Your task to perform on an android device: Open Chrome and go to the settings page Image 0: 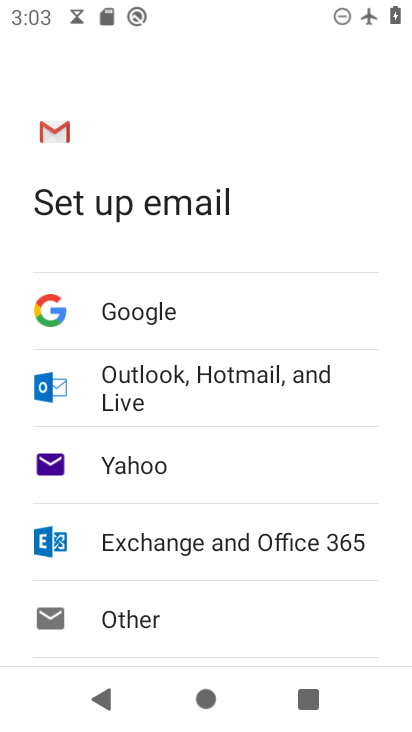
Step 0: click (326, 504)
Your task to perform on an android device: Open Chrome and go to the settings page Image 1: 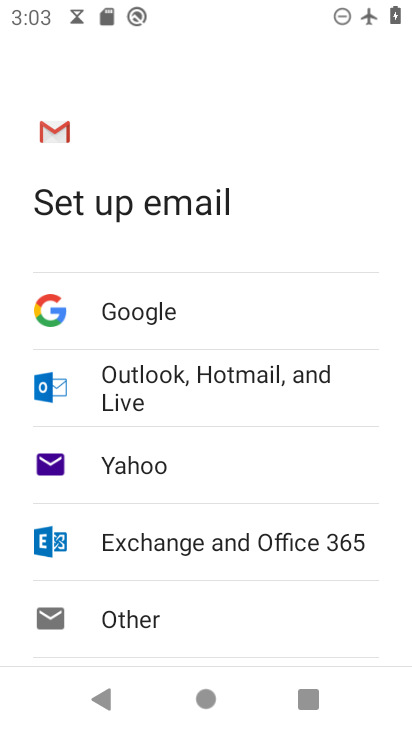
Step 1: press home button
Your task to perform on an android device: Open Chrome and go to the settings page Image 2: 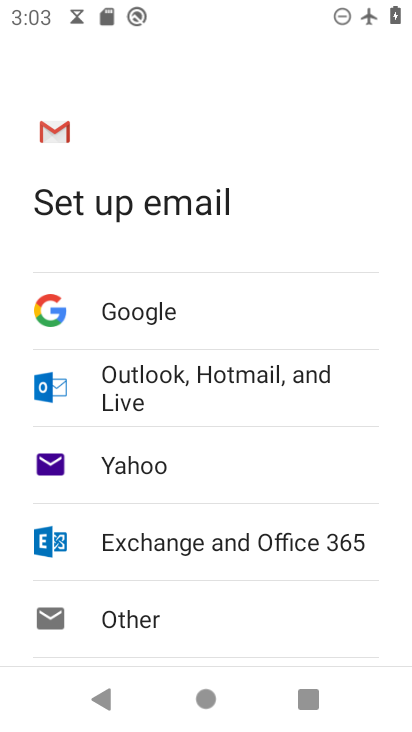
Step 2: drag from (330, 505) to (350, 581)
Your task to perform on an android device: Open Chrome and go to the settings page Image 3: 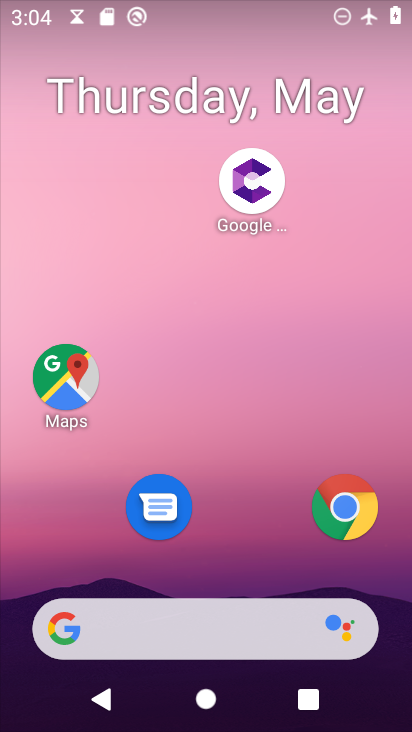
Step 3: click (326, 496)
Your task to perform on an android device: Open Chrome and go to the settings page Image 4: 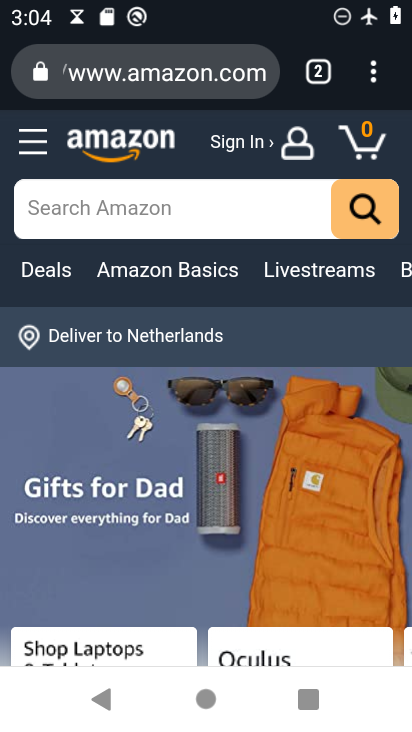
Step 4: click (367, 81)
Your task to perform on an android device: Open Chrome and go to the settings page Image 5: 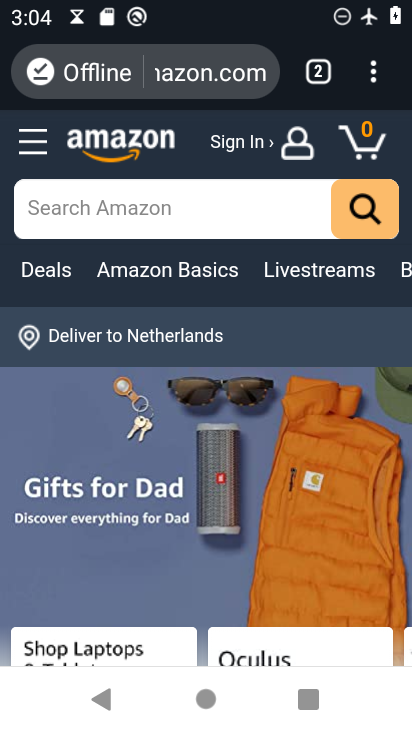
Step 5: click (374, 67)
Your task to perform on an android device: Open Chrome and go to the settings page Image 6: 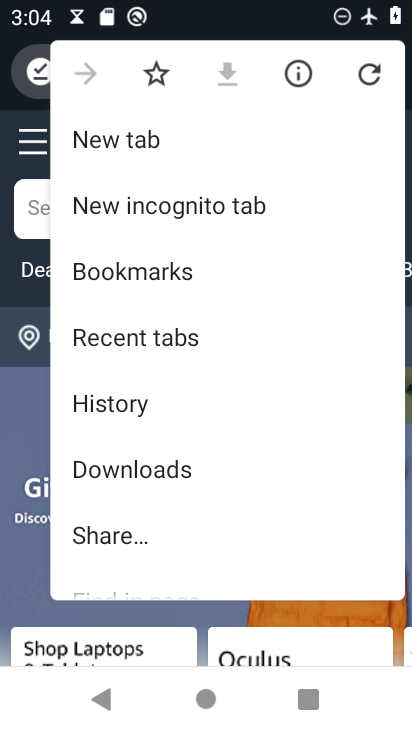
Step 6: drag from (265, 532) to (239, 80)
Your task to perform on an android device: Open Chrome and go to the settings page Image 7: 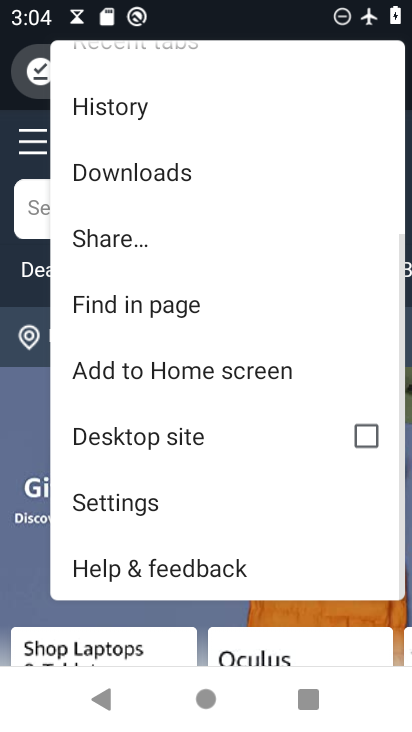
Step 7: click (111, 502)
Your task to perform on an android device: Open Chrome and go to the settings page Image 8: 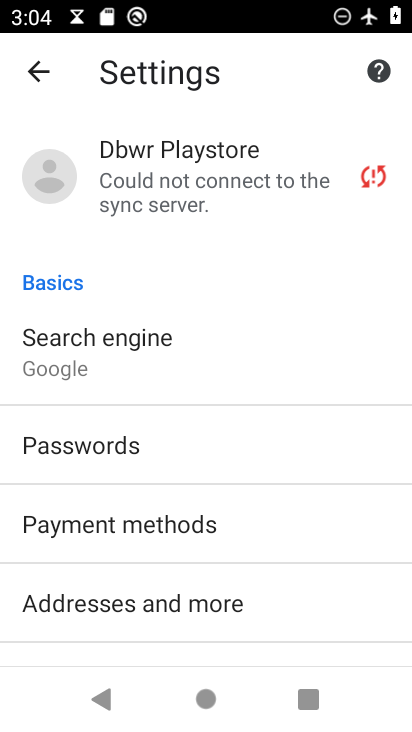
Step 8: task complete